Your task to perform on an android device: change text size in settings app Image 0: 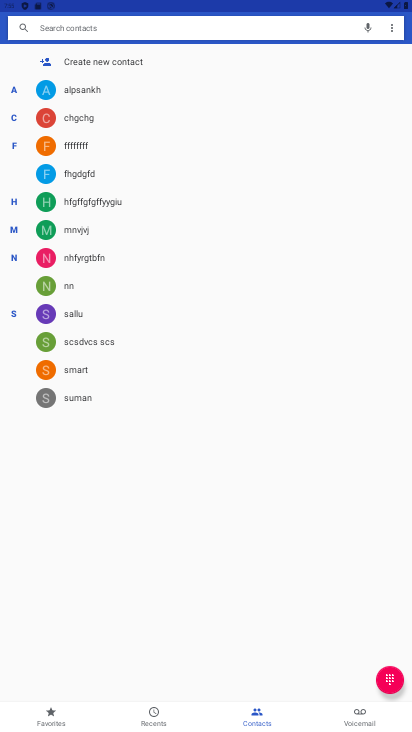
Step 0: press home button
Your task to perform on an android device: change text size in settings app Image 1: 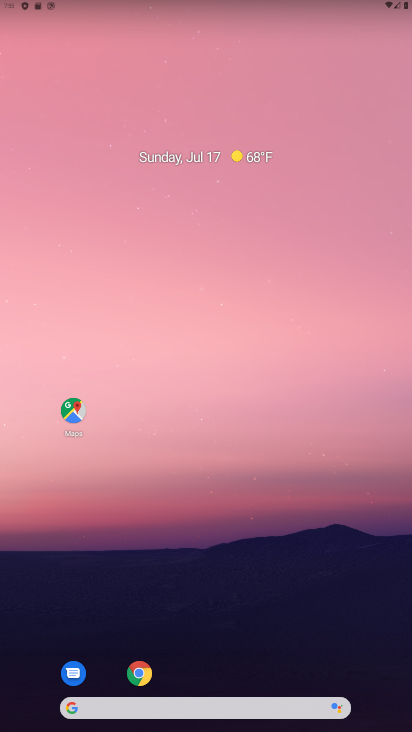
Step 1: drag from (254, 560) to (131, 68)
Your task to perform on an android device: change text size in settings app Image 2: 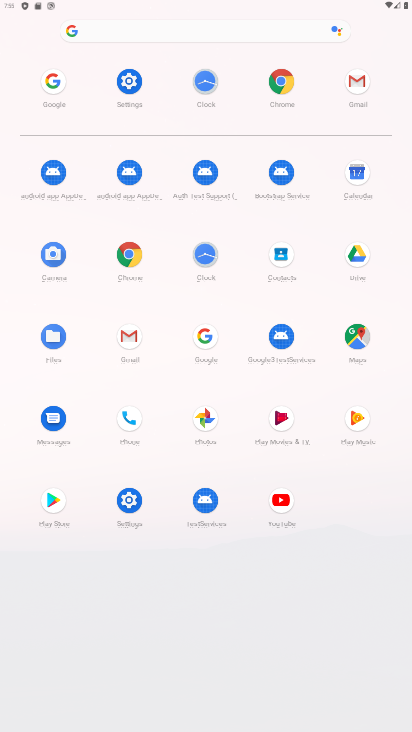
Step 2: click (129, 90)
Your task to perform on an android device: change text size in settings app Image 3: 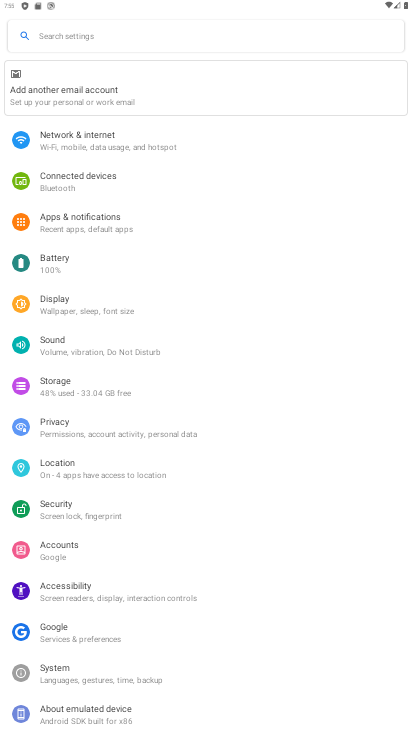
Step 3: click (100, 311)
Your task to perform on an android device: change text size in settings app Image 4: 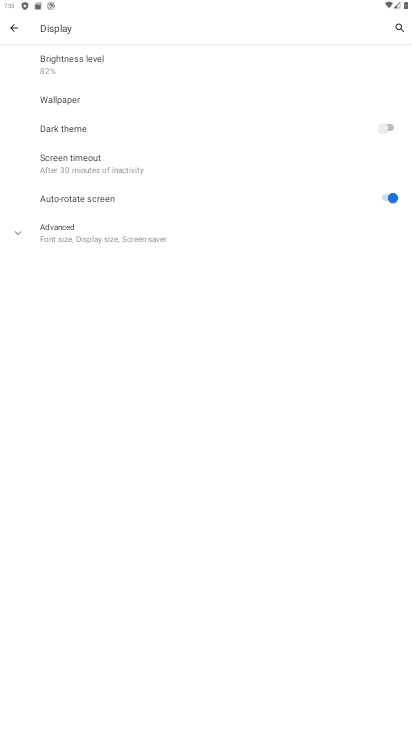
Step 4: click (49, 230)
Your task to perform on an android device: change text size in settings app Image 5: 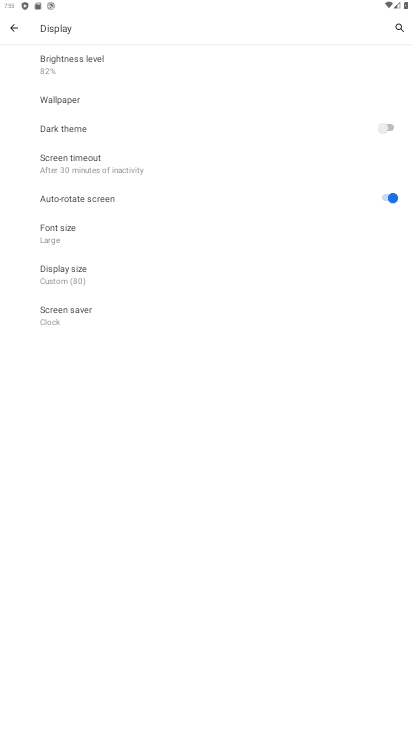
Step 5: click (46, 239)
Your task to perform on an android device: change text size in settings app Image 6: 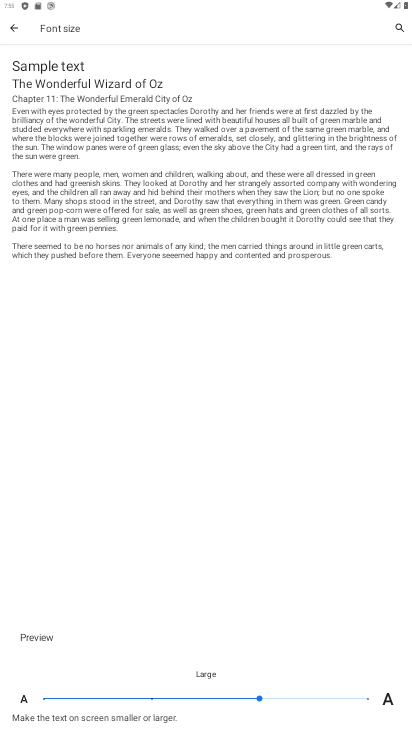
Step 6: click (170, 691)
Your task to perform on an android device: change text size in settings app Image 7: 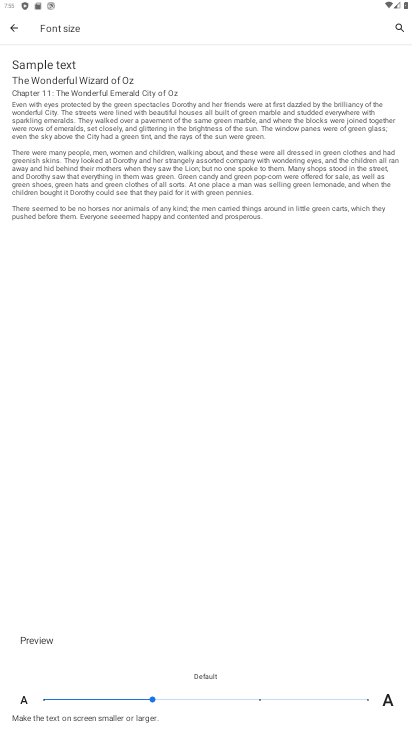
Step 7: task complete